Your task to perform on an android device: turn on showing notifications on the lock screen Image 0: 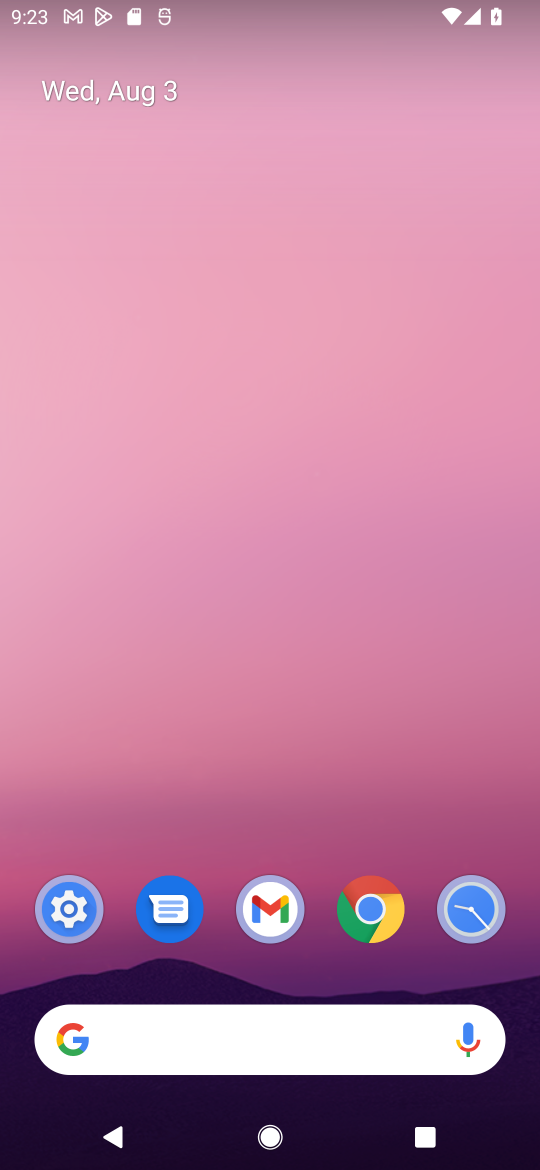
Step 0: press home button
Your task to perform on an android device: turn on showing notifications on the lock screen Image 1: 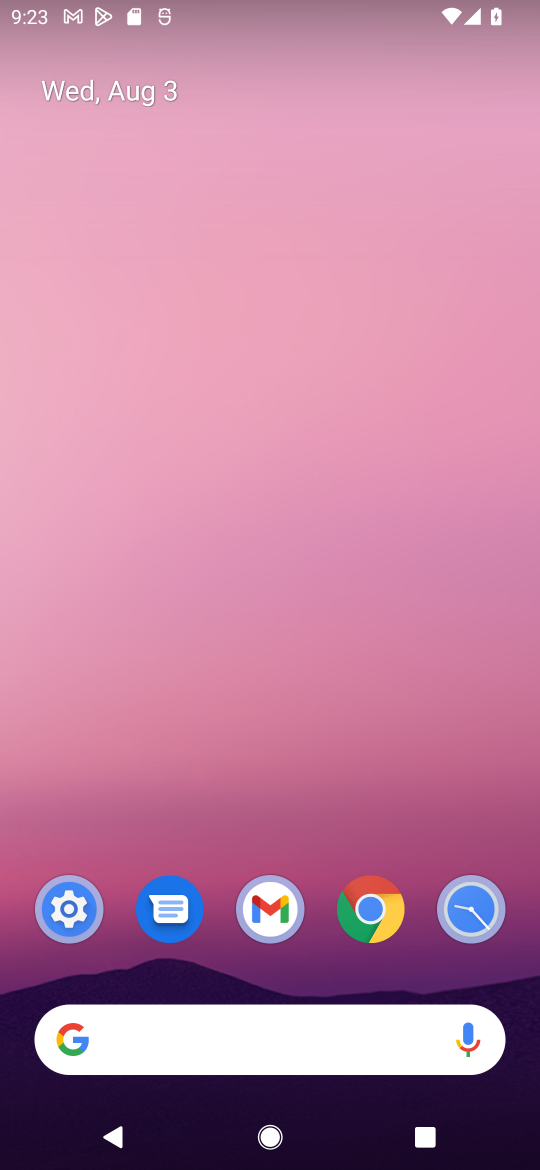
Step 1: drag from (424, 828) to (387, 281)
Your task to perform on an android device: turn on showing notifications on the lock screen Image 2: 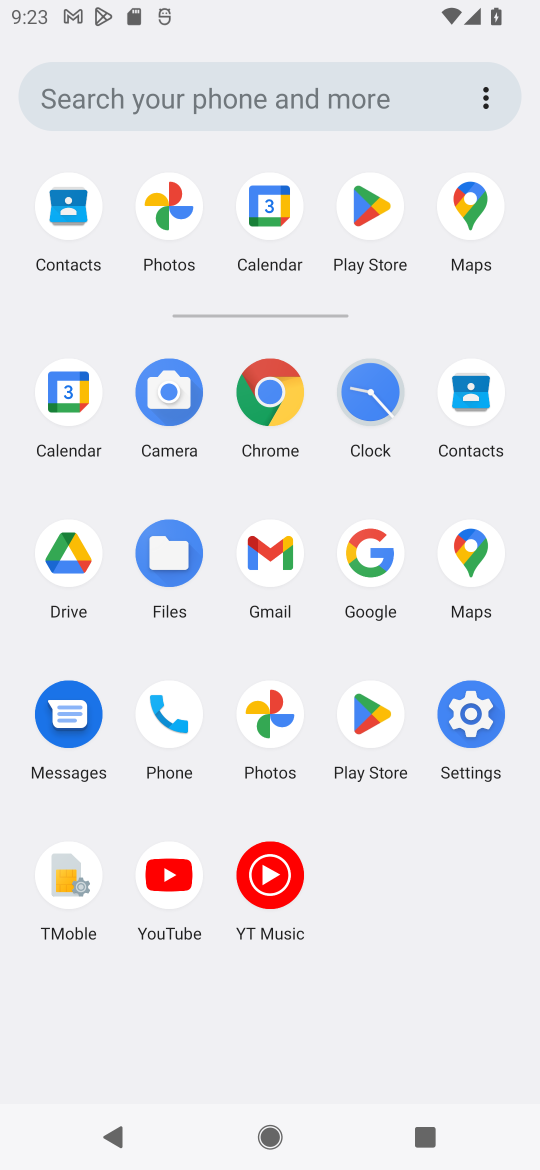
Step 2: click (277, 403)
Your task to perform on an android device: turn on showing notifications on the lock screen Image 3: 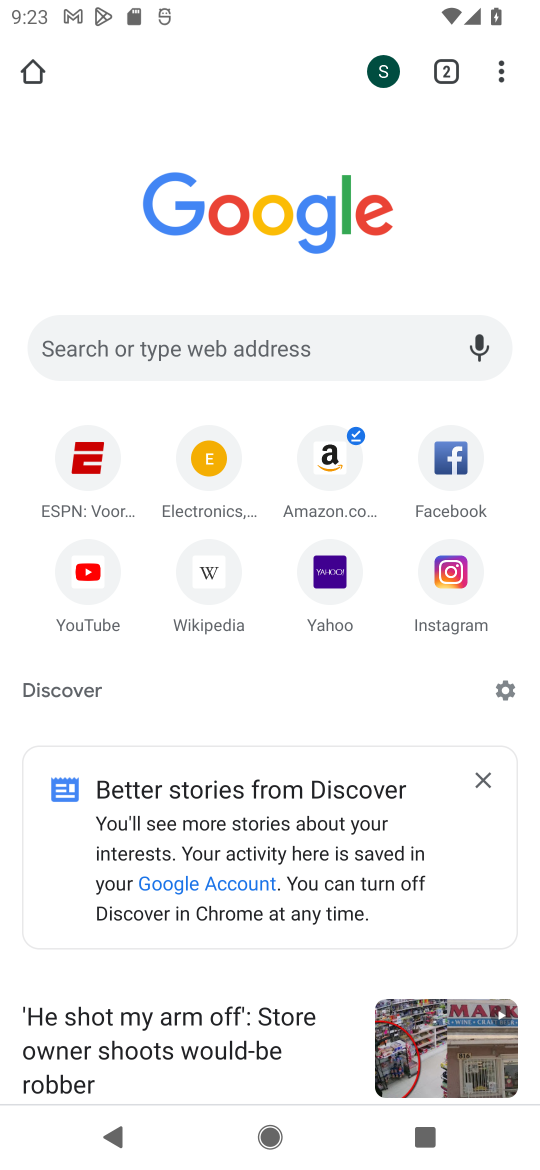
Step 3: click (502, 74)
Your task to perform on an android device: turn on showing notifications on the lock screen Image 4: 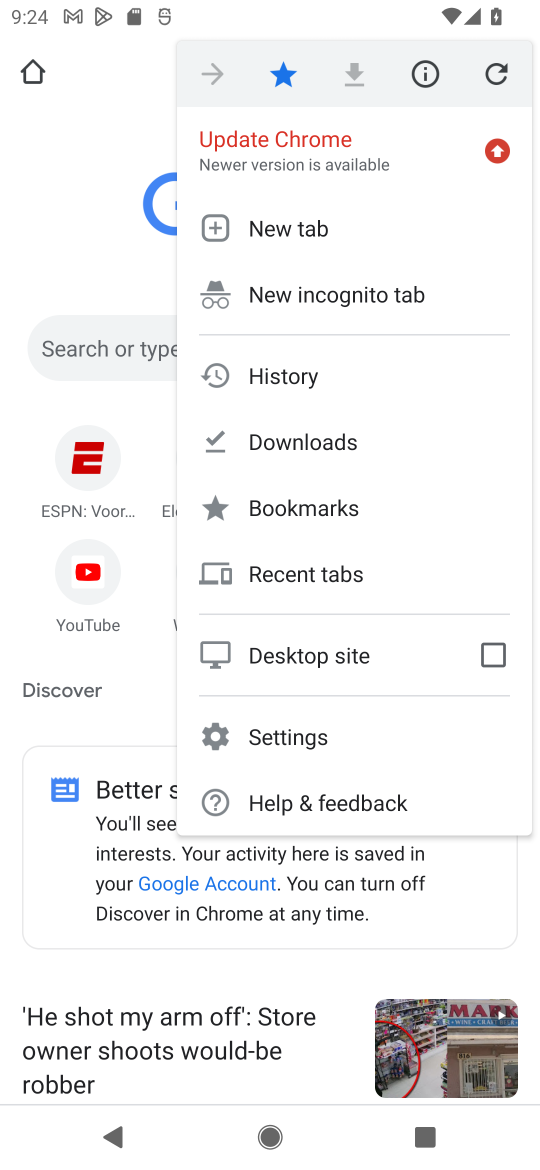
Step 4: press home button
Your task to perform on an android device: turn on showing notifications on the lock screen Image 5: 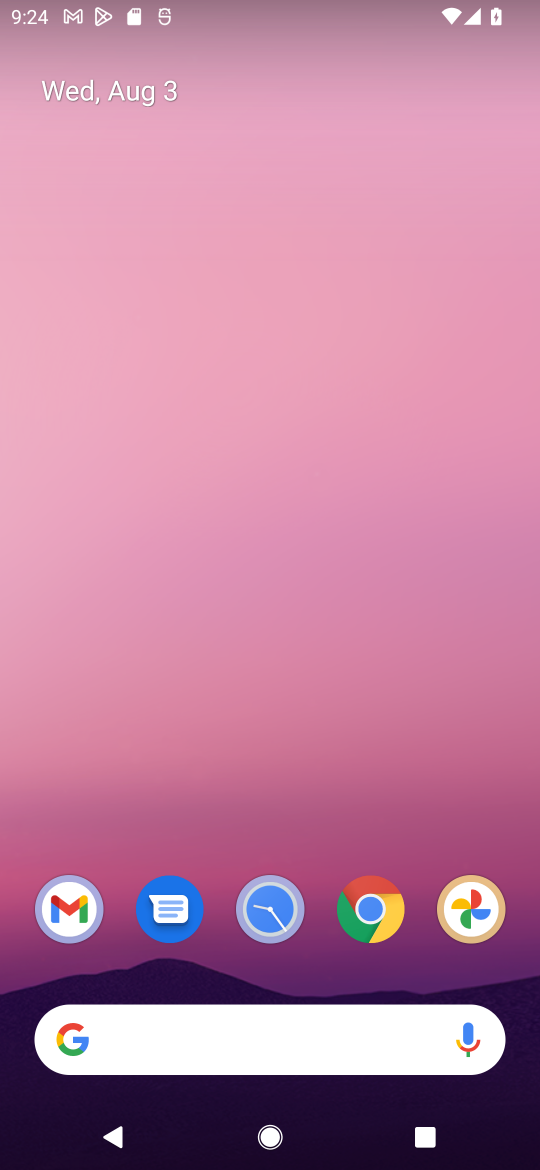
Step 5: drag from (418, 726) to (414, 243)
Your task to perform on an android device: turn on showing notifications on the lock screen Image 6: 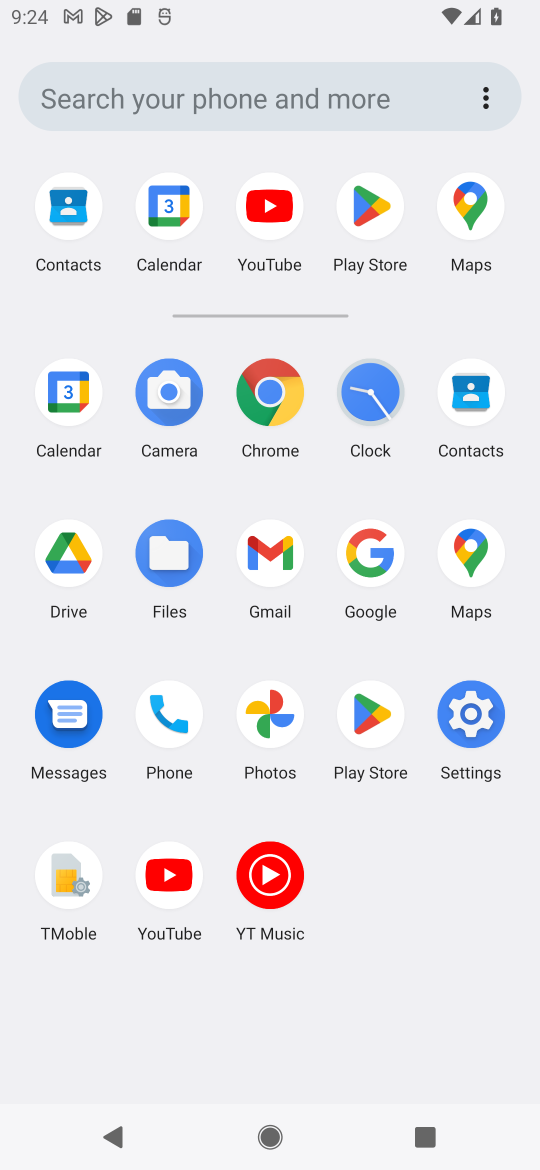
Step 6: click (480, 731)
Your task to perform on an android device: turn on showing notifications on the lock screen Image 7: 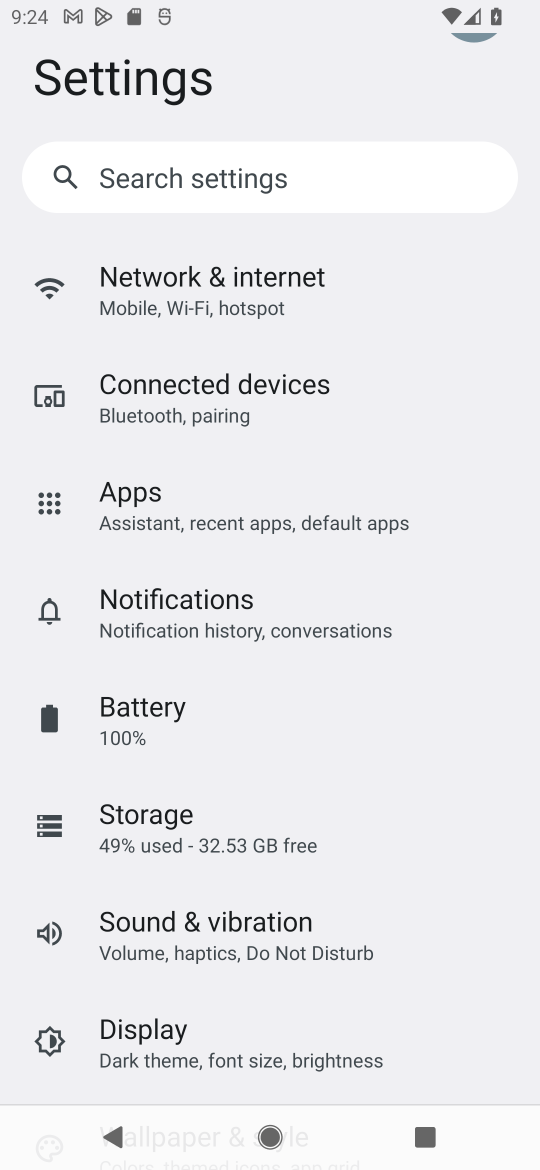
Step 7: drag from (449, 913) to (444, 796)
Your task to perform on an android device: turn on showing notifications on the lock screen Image 8: 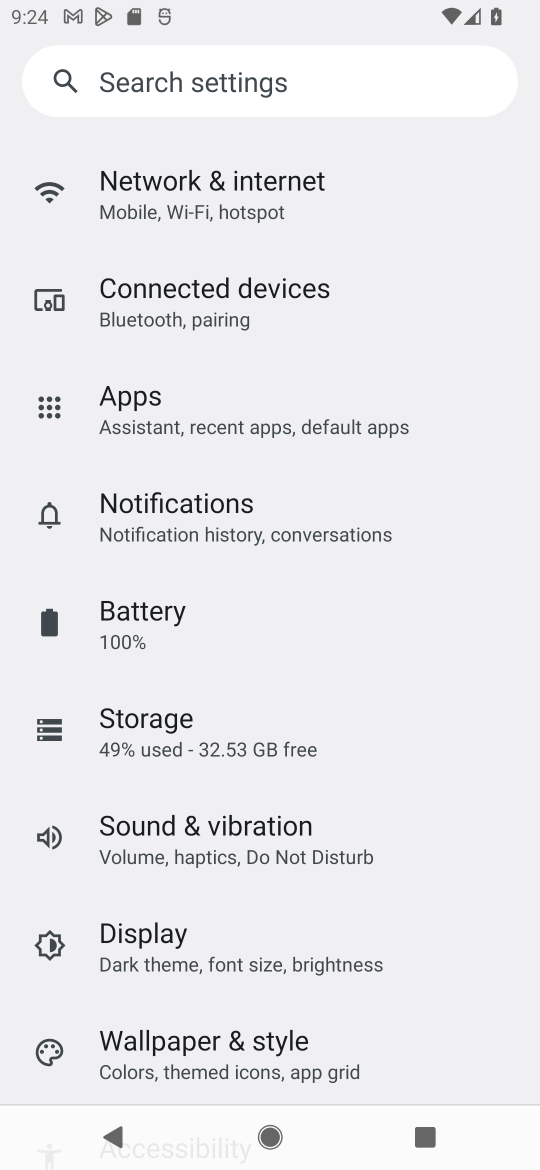
Step 8: drag from (441, 986) to (442, 823)
Your task to perform on an android device: turn on showing notifications on the lock screen Image 9: 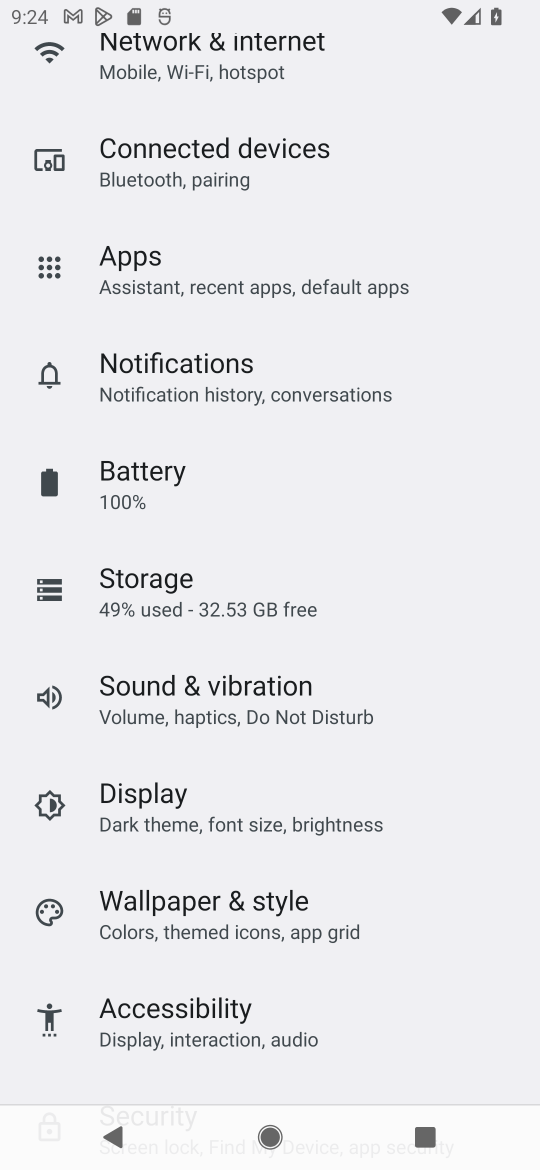
Step 9: drag from (438, 993) to (458, 696)
Your task to perform on an android device: turn on showing notifications on the lock screen Image 10: 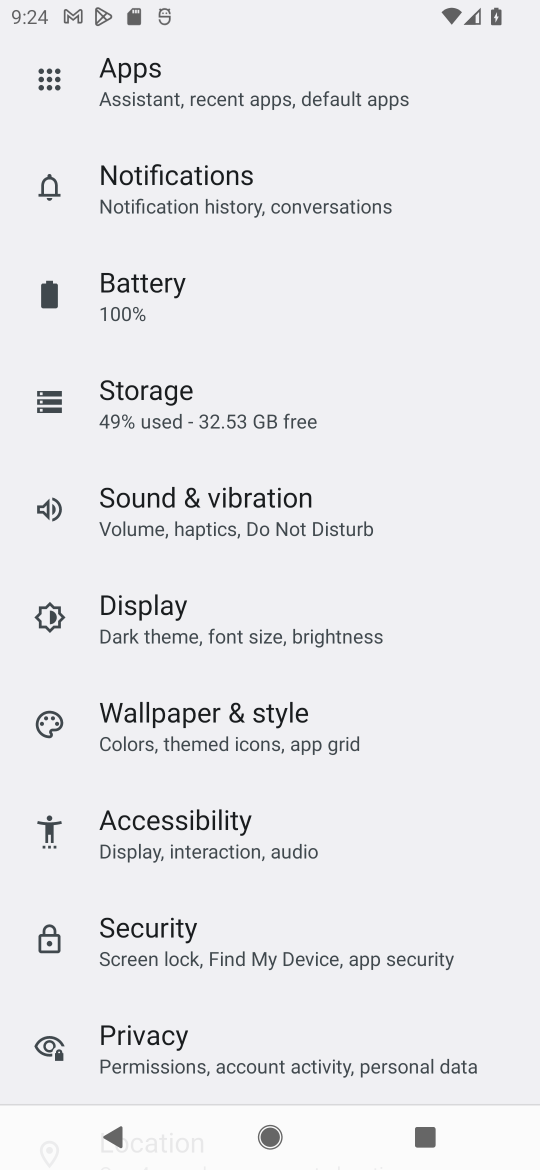
Step 10: drag from (460, 623) to (460, 744)
Your task to perform on an android device: turn on showing notifications on the lock screen Image 11: 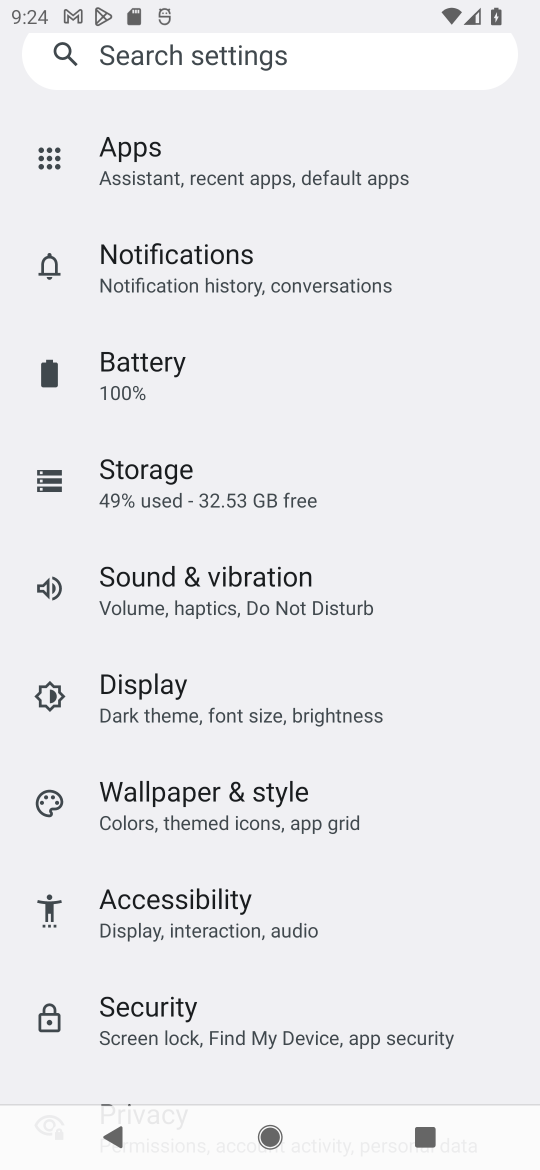
Step 11: drag from (473, 492) to (475, 635)
Your task to perform on an android device: turn on showing notifications on the lock screen Image 12: 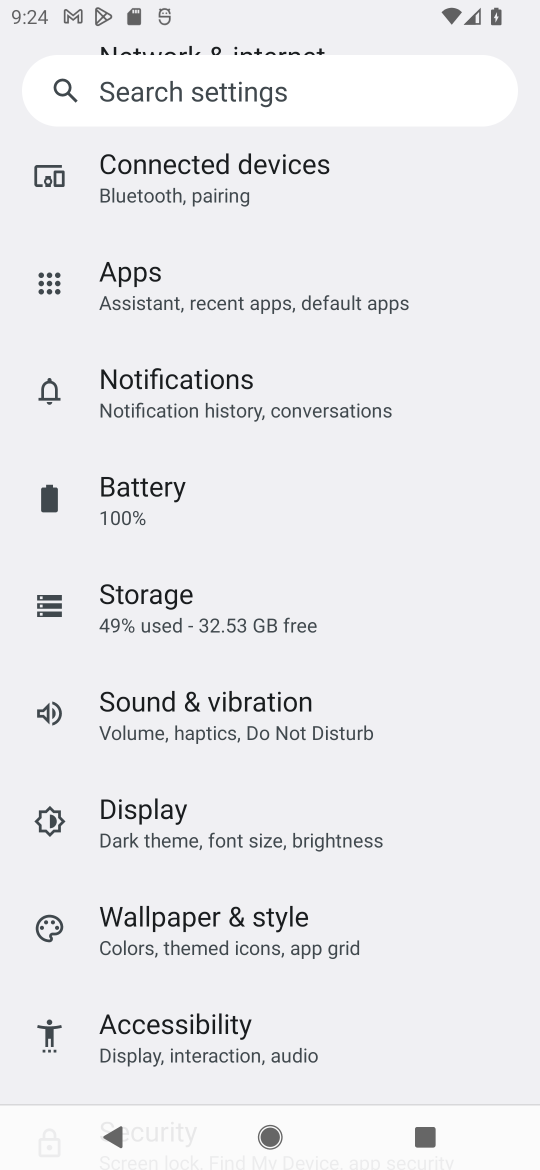
Step 12: drag from (482, 468) to (478, 734)
Your task to perform on an android device: turn on showing notifications on the lock screen Image 13: 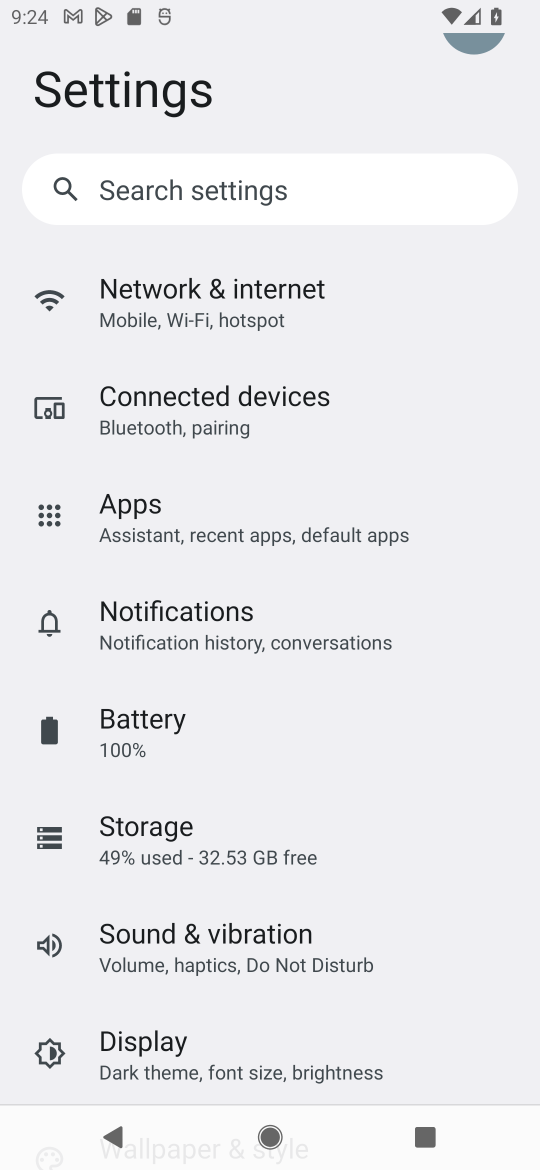
Step 13: drag from (472, 372) to (467, 680)
Your task to perform on an android device: turn on showing notifications on the lock screen Image 14: 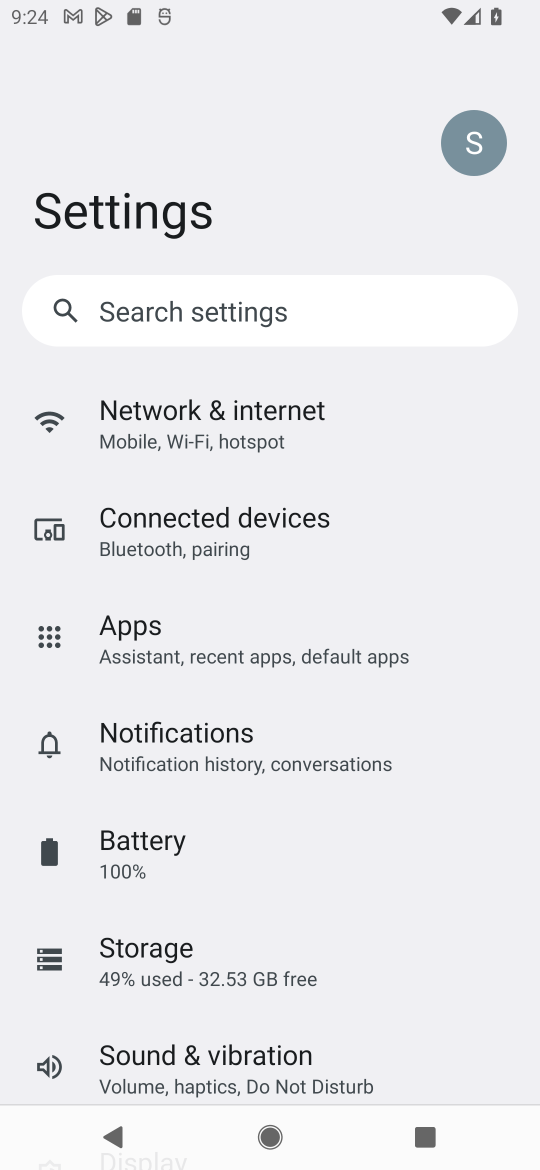
Step 14: click (332, 745)
Your task to perform on an android device: turn on showing notifications on the lock screen Image 15: 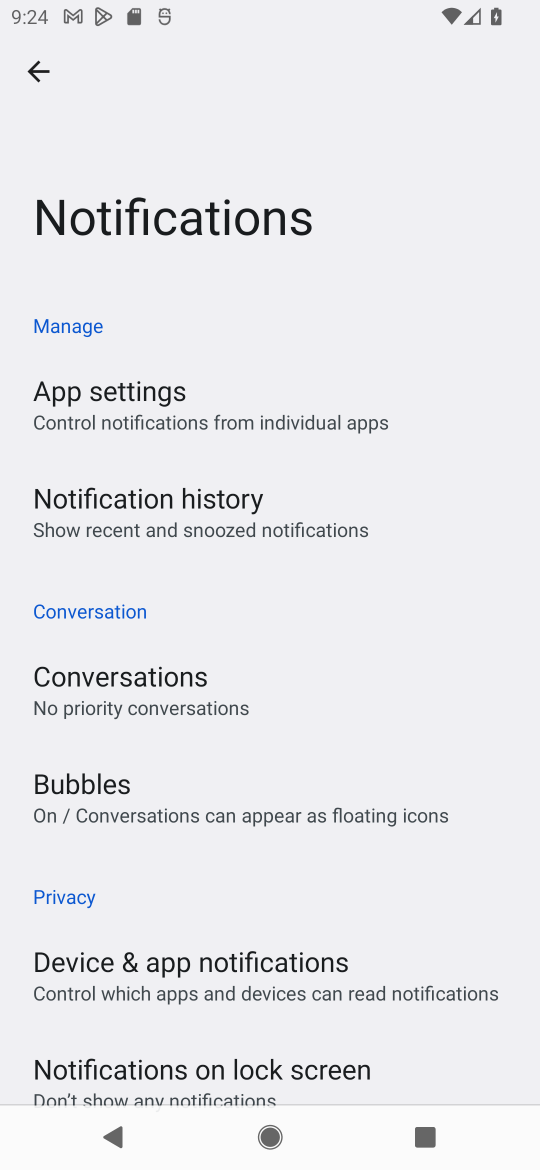
Step 15: drag from (346, 761) to (352, 597)
Your task to perform on an android device: turn on showing notifications on the lock screen Image 16: 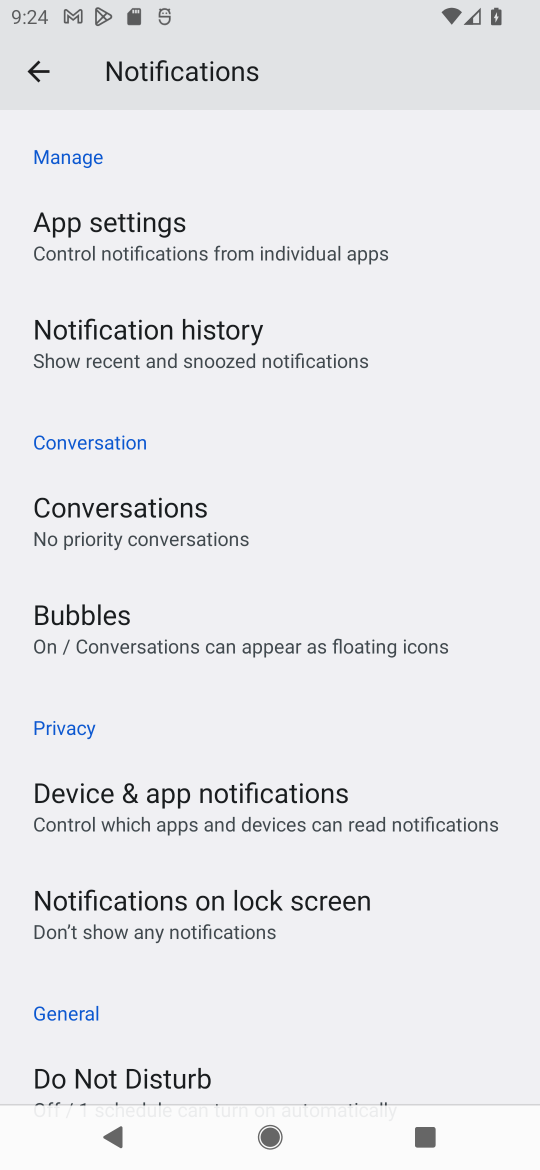
Step 16: drag from (411, 959) to (407, 624)
Your task to perform on an android device: turn on showing notifications on the lock screen Image 17: 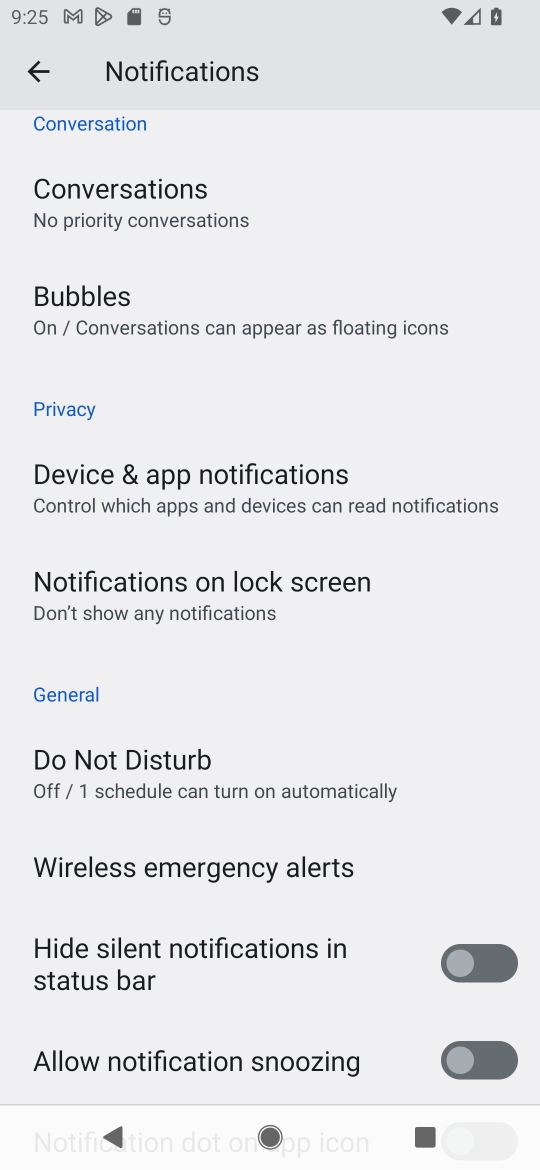
Step 17: click (298, 604)
Your task to perform on an android device: turn on showing notifications on the lock screen Image 18: 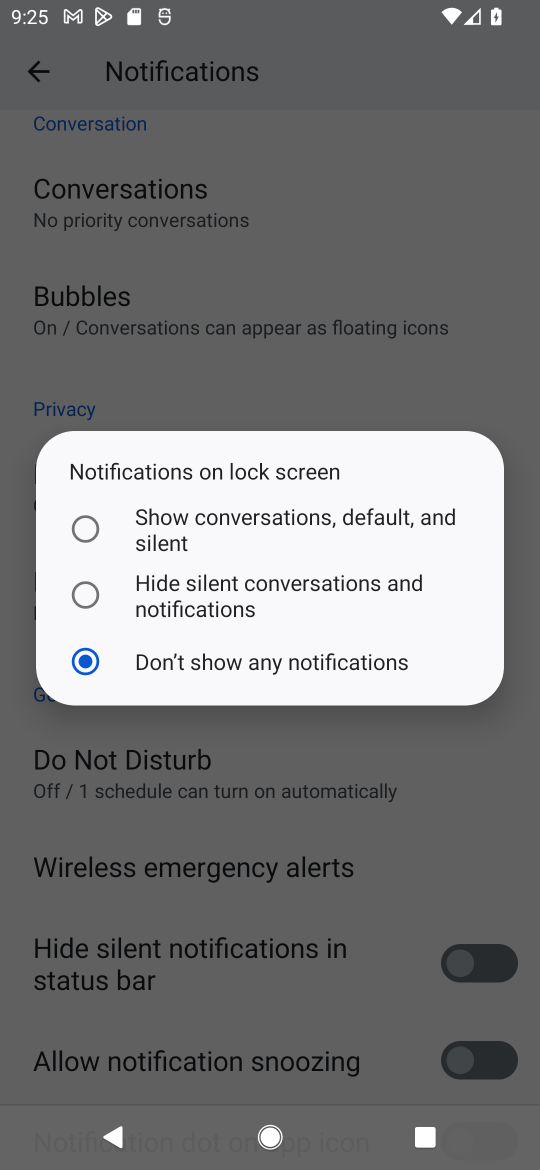
Step 18: click (298, 518)
Your task to perform on an android device: turn on showing notifications on the lock screen Image 19: 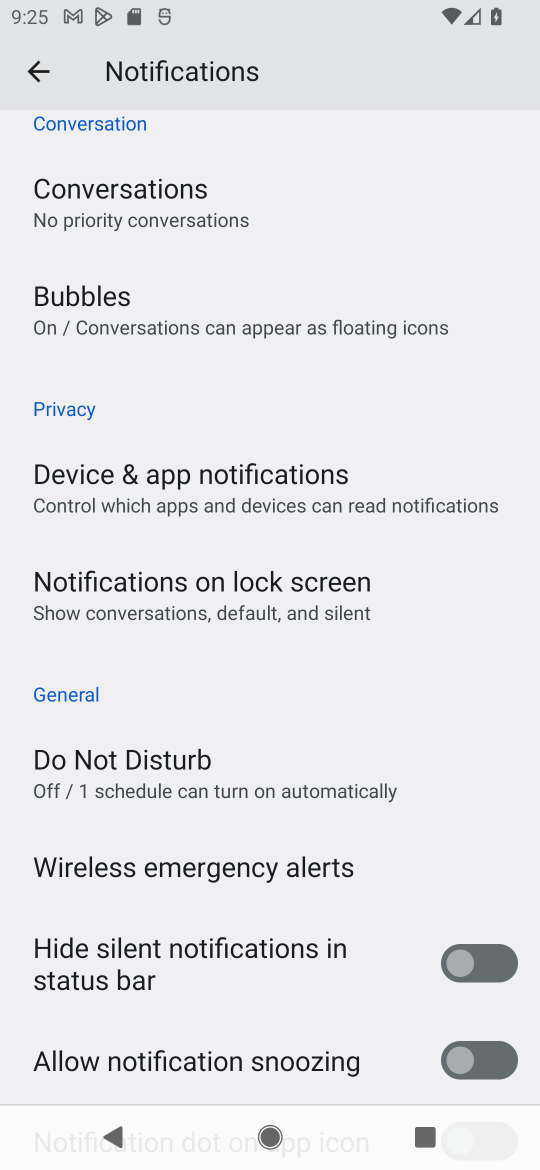
Step 19: task complete